Your task to perform on an android device: open app "Adobe Acrobat Reader" Image 0: 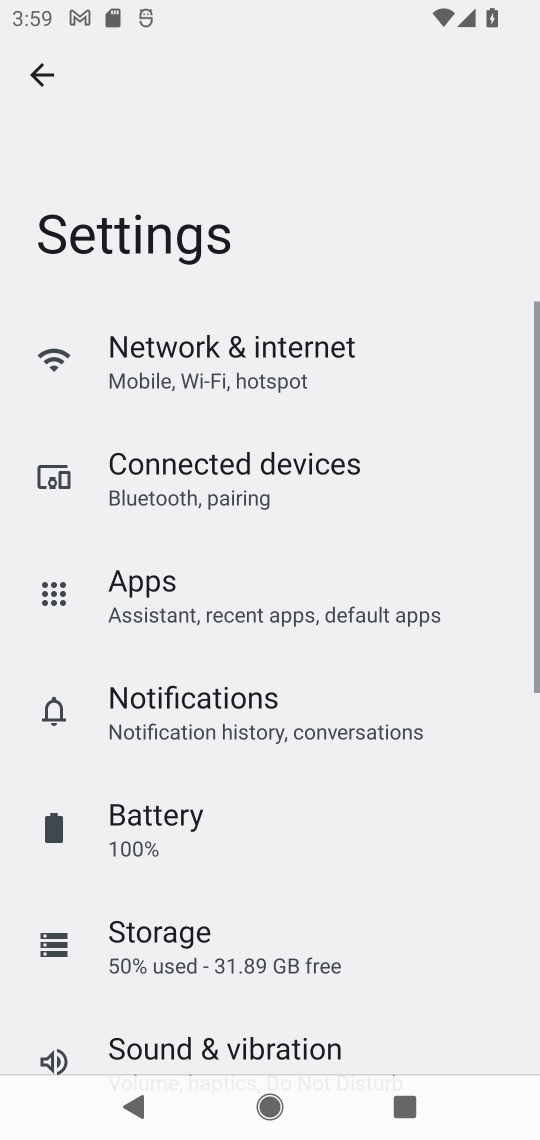
Step 0: press home button
Your task to perform on an android device: open app "Adobe Acrobat Reader" Image 1: 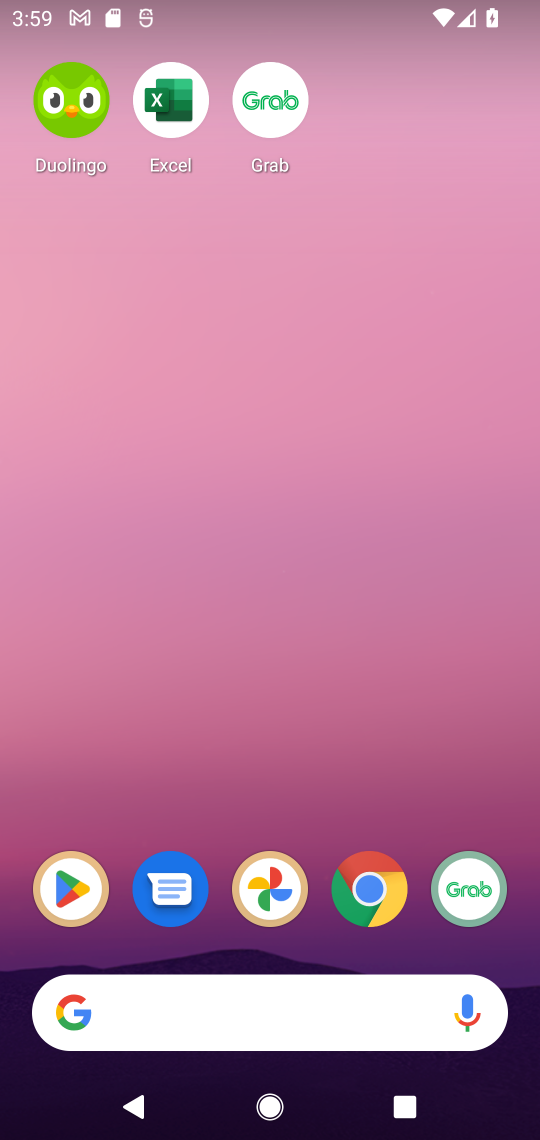
Step 1: drag from (399, 664) to (432, 102)
Your task to perform on an android device: open app "Adobe Acrobat Reader" Image 2: 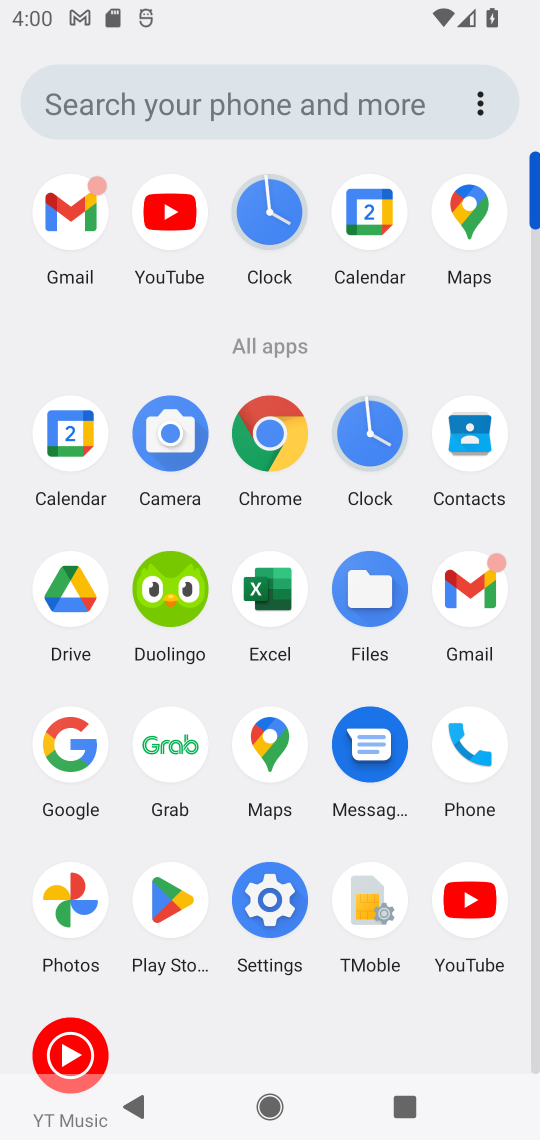
Step 2: click (168, 905)
Your task to perform on an android device: open app "Adobe Acrobat Reader" Image 3: 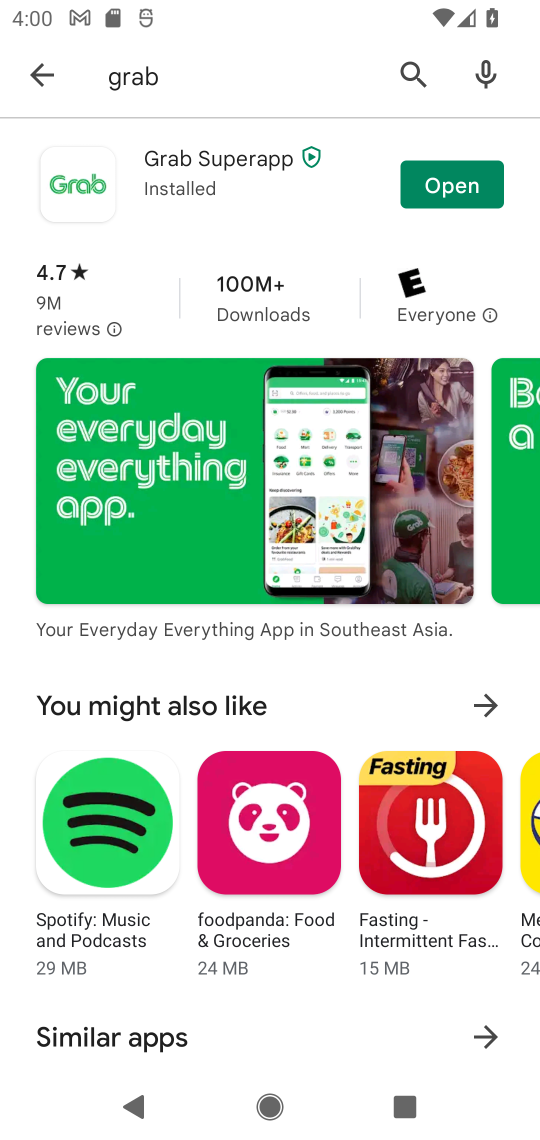
Step 3: click (409, 67)
Your task to perform on an android device: open app "Adobe Acrobat Reader" Image 4: 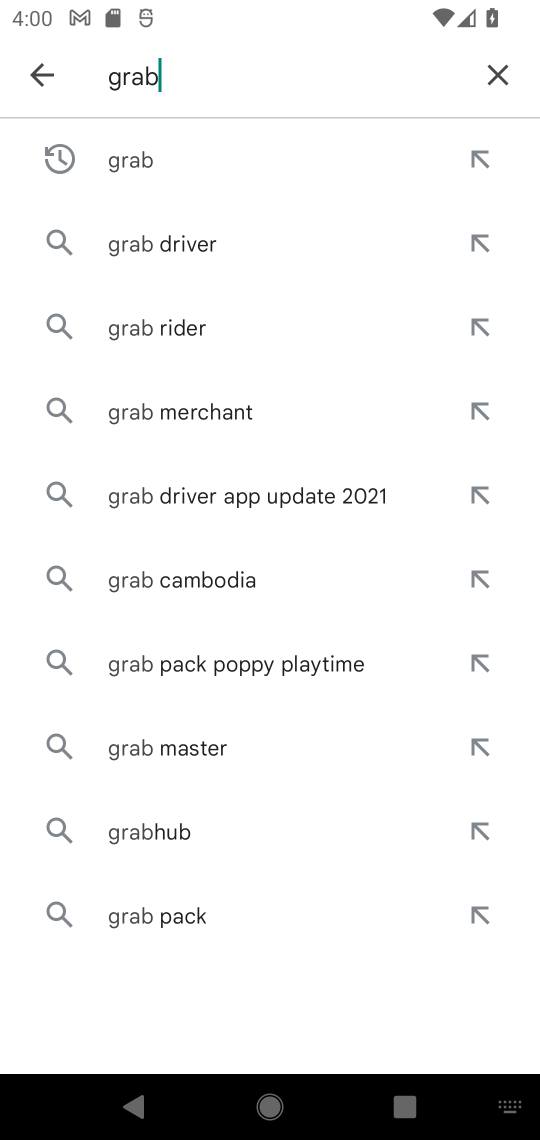
Step 4: click (505, 79)
Your task to perform on an android device: open app "Adobe Acrobat Reader" Image 5: 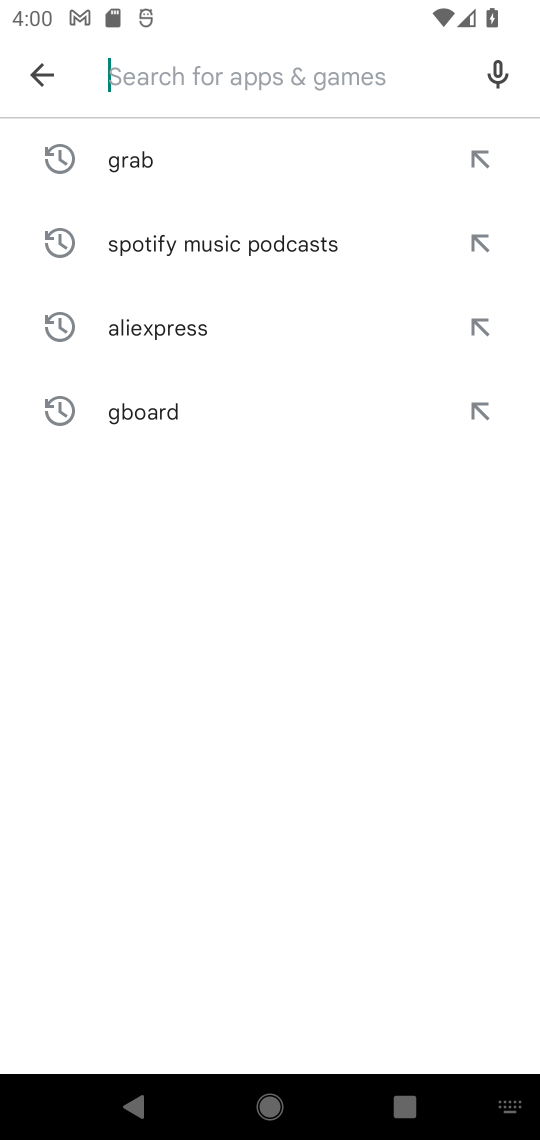
Step 5: type "Adobe Acrobat Reader"
Your task to perform on an android device: open app "Adobe Acrobat Reader" Image 6: 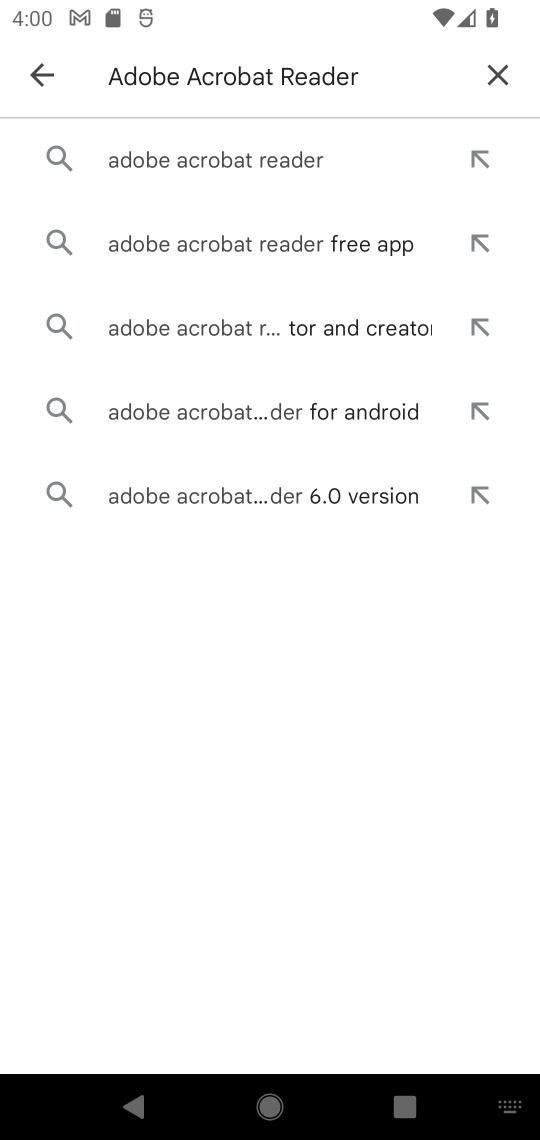
Step 6: click (309, 153)
Your task to perform on an android device: open app "Adobe Acrobat Reader" Image 7: 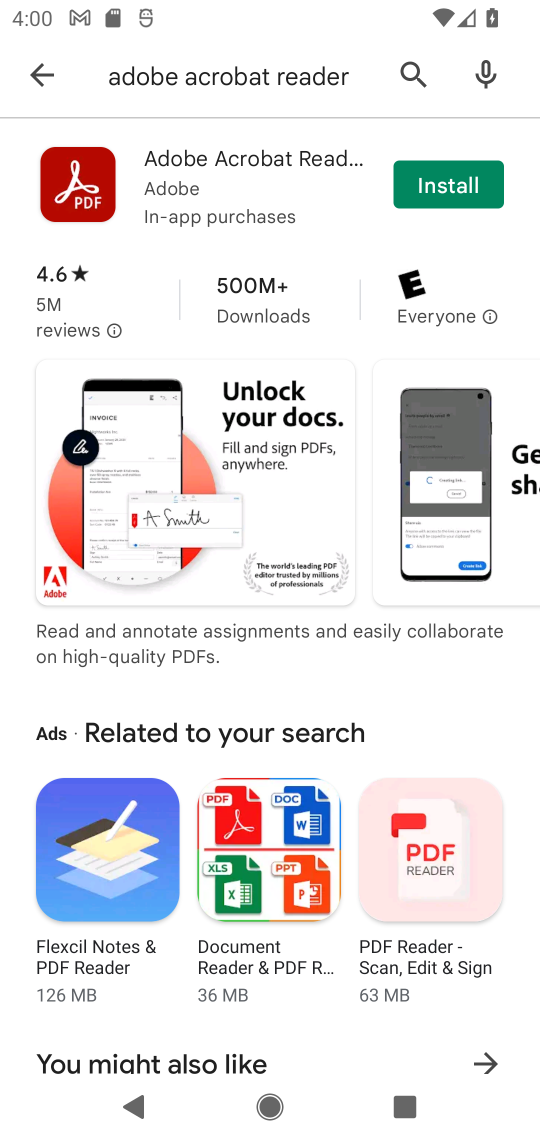
Step 7: task complete